Your task to perform on an android device: clear all cookies in the chrome app Image 0: 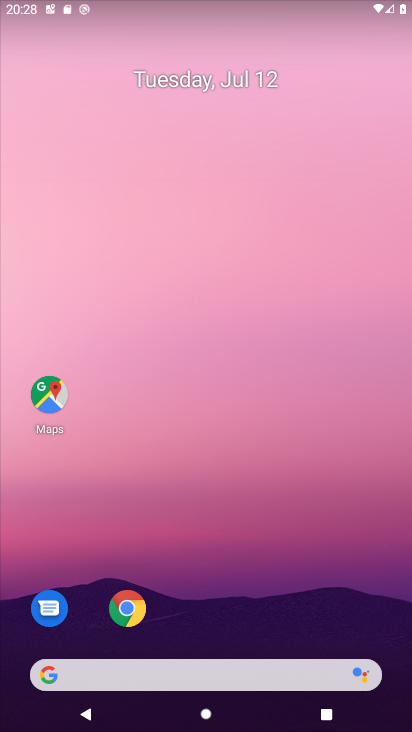
Step 0: click (126, 607)
Your task to perform on an android device: clear all cookies in the chrome app Image 1: 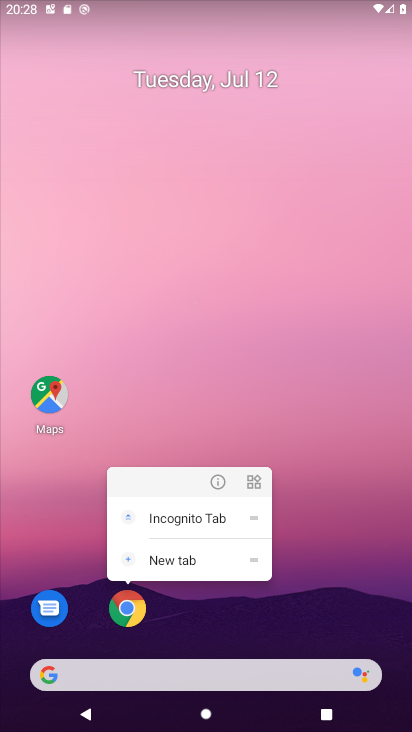
Step 1: click (127, 613)
Your task to perform on an android device: clear all cookies in the chrome app Image 2: 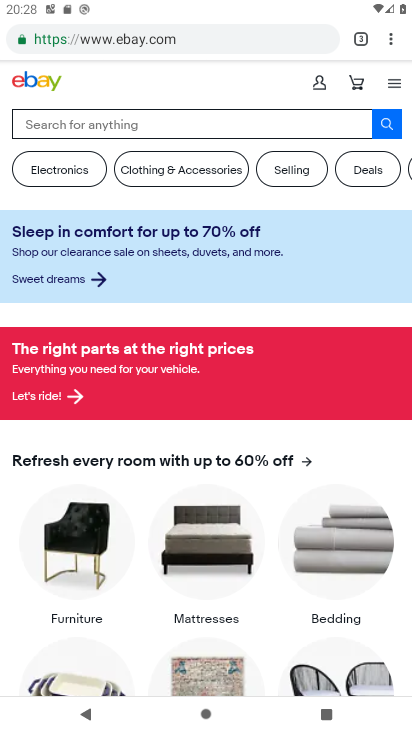
Step 2: click (390, 51)
Your task to perform on an android device: clear all cookies in the chrome app Image 3: 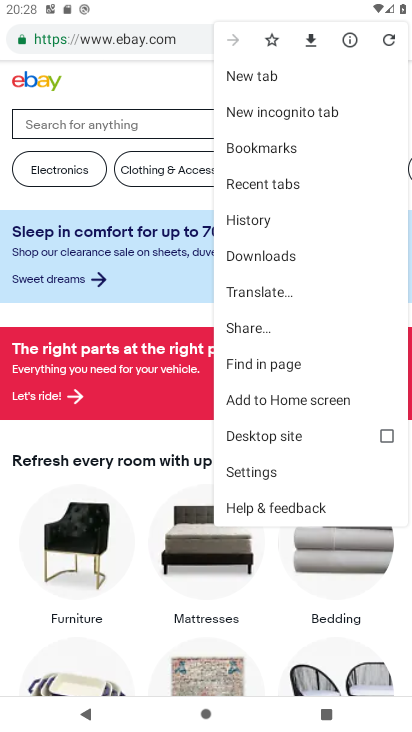
Step 3: click (242, 471)
Your task to perform on an android device: clear all cookies in the chrome app Image 4: 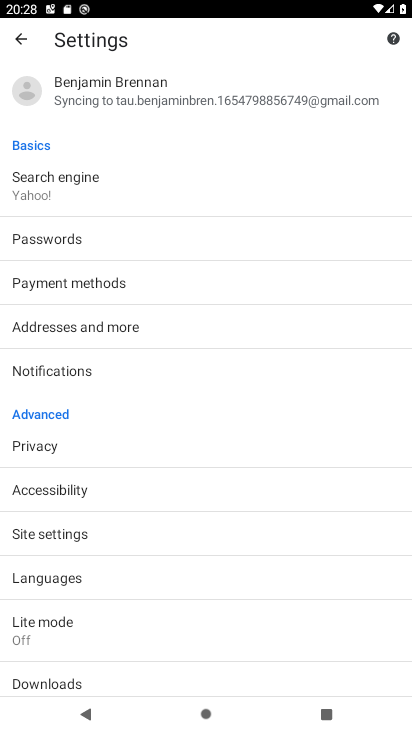
Step 4: click (36, 442)
Your task to perform on an android device: clear all cookies in the chrome app Image 5: 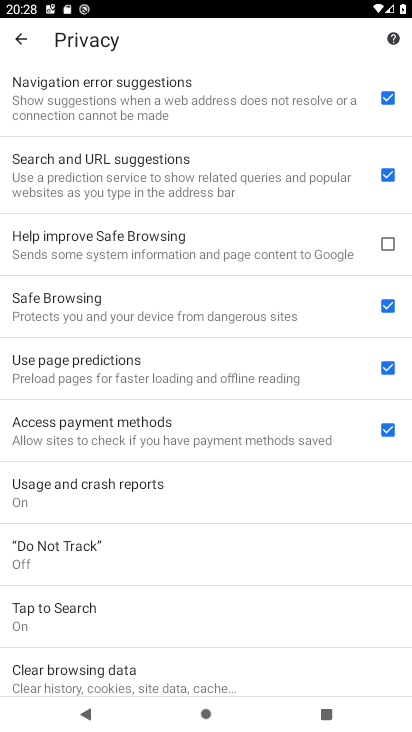
Step 5: drag from (177, 625) to (218, 326)
Your task to perform on an android device: clear all cookies in the chrome app Image 6: 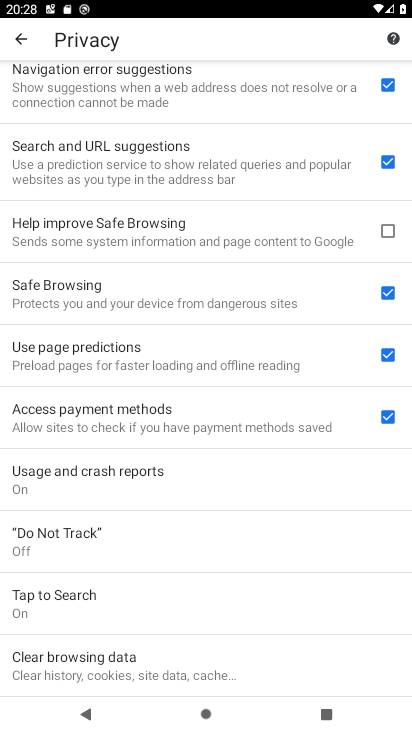
Step 6: click (94, 657)
Your task to perform on an android device: clear all cookies in the chrome app Image 7: 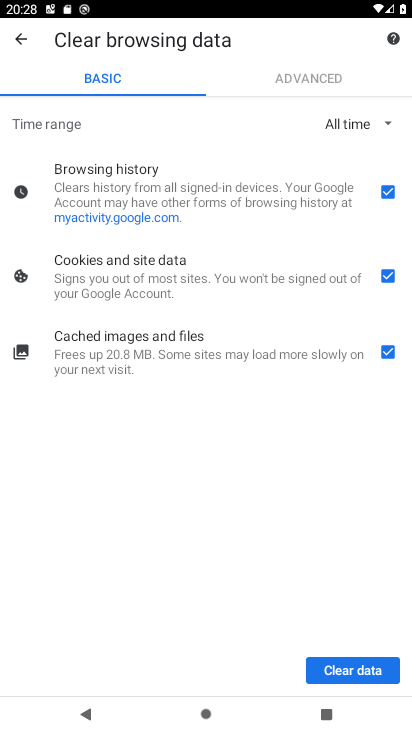
Step 7: click (385, 197)
Your task to perform on an android device: clear all cookies in the chrome app Image 8: 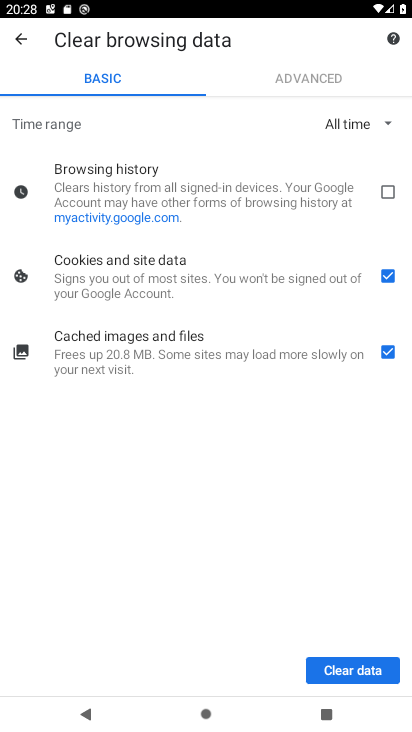
Step 8: click (393, 352)
Your task to perform on an android device: clear all cookies in the chrome app Image 9: 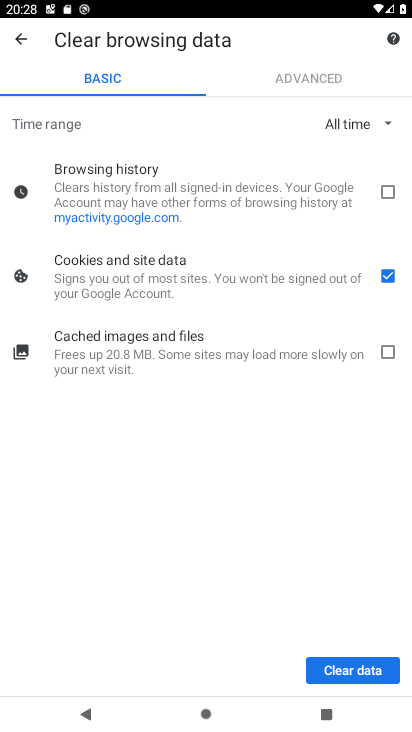
Step 9: click (337, 671)
Your task to perform on an android device: clear all cookies in the chrome app Image 10: 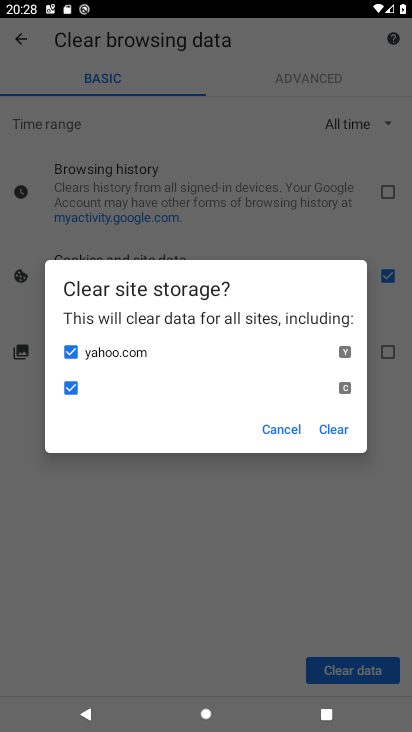
Step 10: click (328, 424)
Your task to perform on an android device: clear all cookies in the chrome app Image 11: 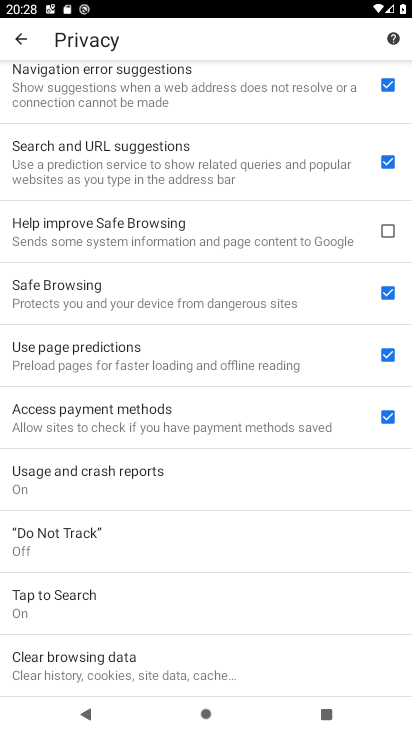
Step 11: task complete